Your task to perform on an android device: clear all cookies in the chrome app Image 0: 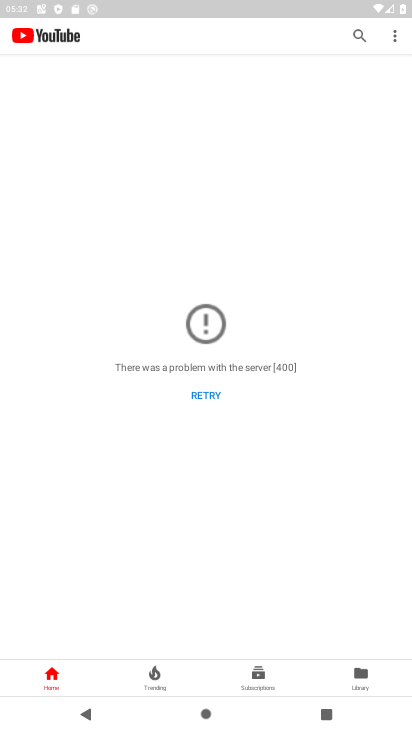
Step 0: press home button
Your task to perform on an android device: clear all cookies in the chrome app Image 1: 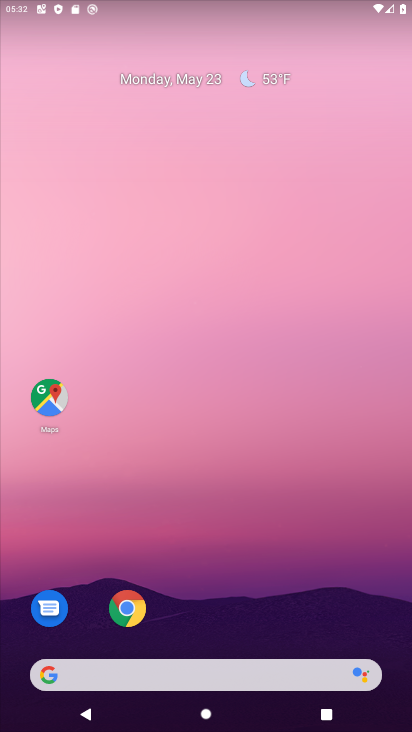
Step 1: click (118, 596)
Your task to perform on an android device: clear all cookies in the chrome app Image 2: 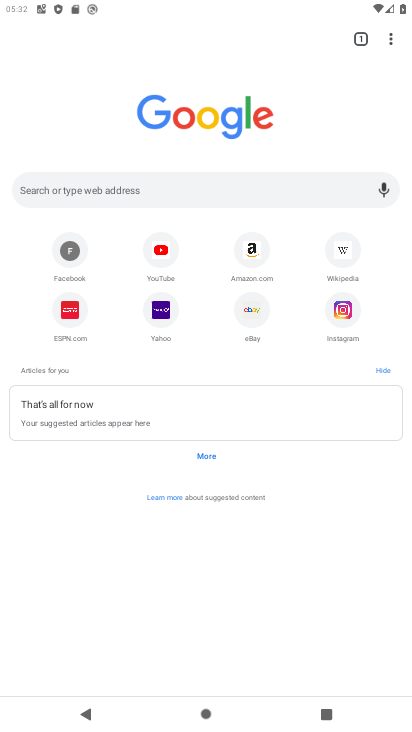
Step 2: click (394, 36)
Your task to perform on an android device: clear all cookies in the chrome app Image 3: 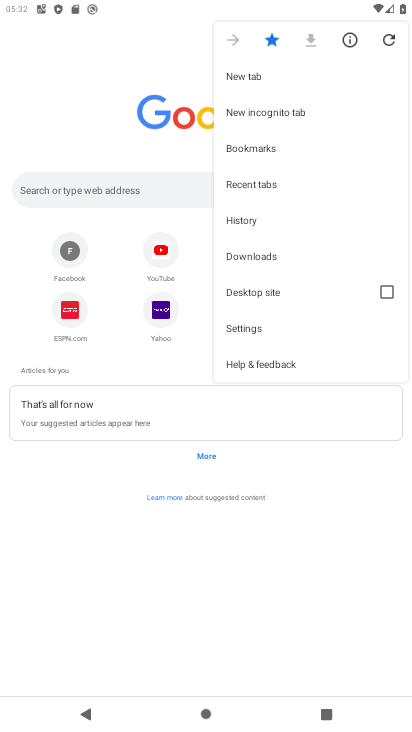
Step 3: click (248, 216)
Your task to perform on an android device: clear all cookies in the chrome app Image 4: 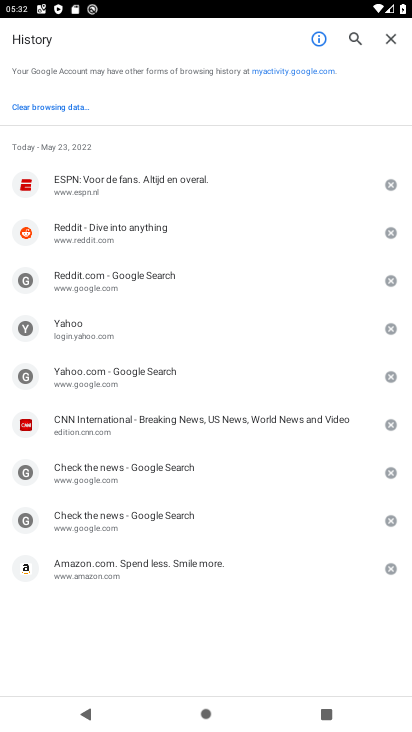
Step 4: click (62, 108)
Your task to perform on an android device: clear all cookies in the chrome app Image 5: 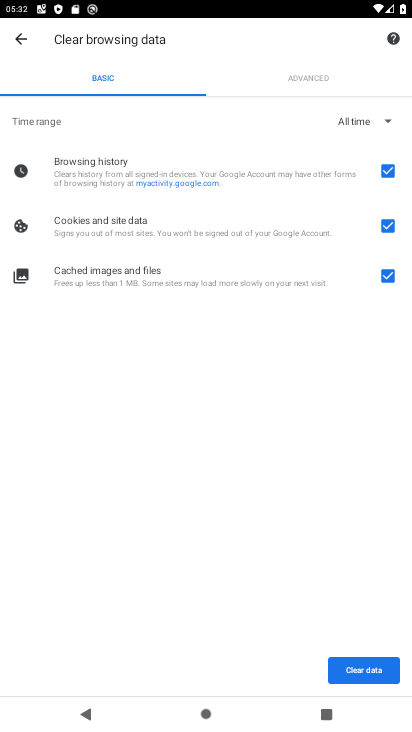
Step 5: click (386, 167)
Your task to perform on an android device: clear all cookies in the chrome app Image 6: 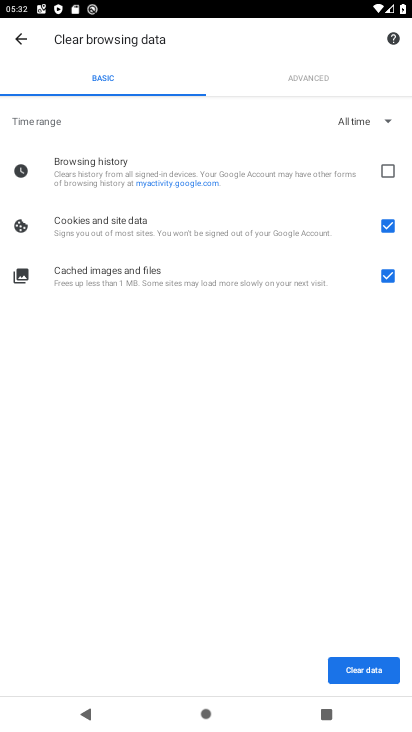
Step 6: click (381, 276)
Your task to perform on an android device: clear all cookies in the chrome app Image 7: 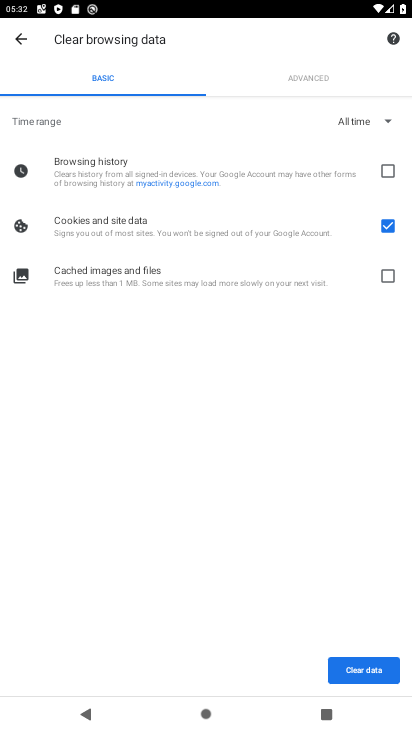
Step 7: click (365, 669)
Your task to perform on an android device: clear all cookies in the chrome app Image 8: 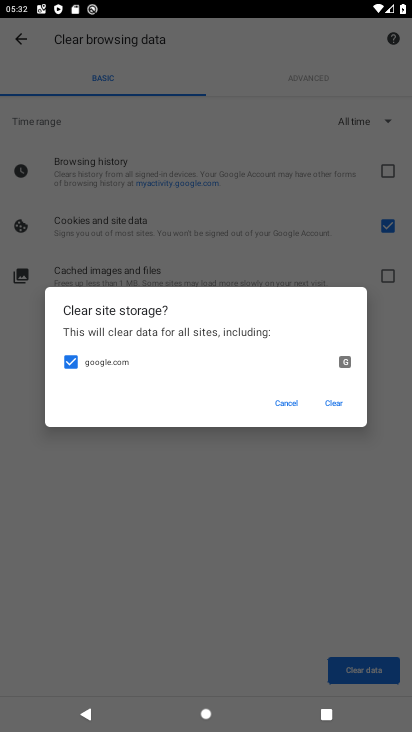
Step 8: click (331, 395)
Your task to perform on an android device: clear all cookies in the chrome app Image 9: 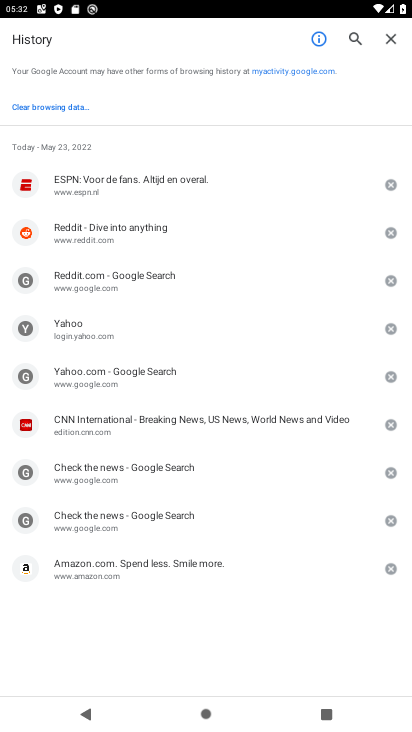
Step 9: task complete